Your task to perform on an android device: toggle priority inbox in the gmail app Image 0: 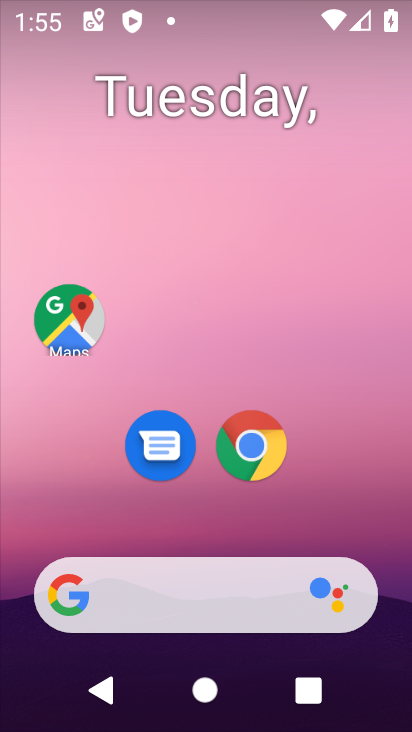
Step 0: drag from (346, 469) to (208, 0)
Your task to perform on an android device: toggle priority inbox in the gmail app Image 1: 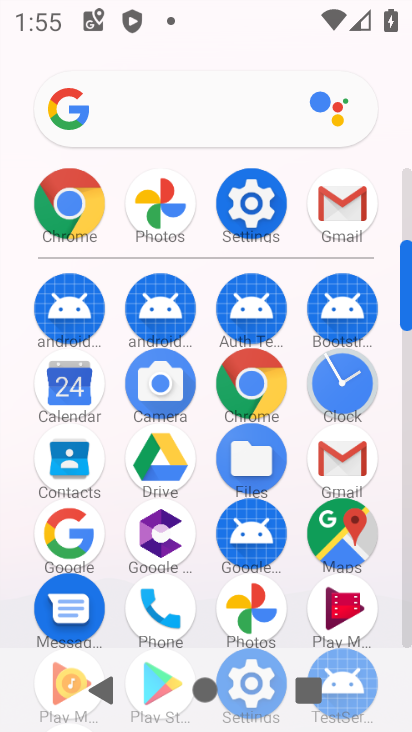
Step 1: click (344, 209)
Your task to perform on an android device: toggle priority inbox in the gmail app Image 2: 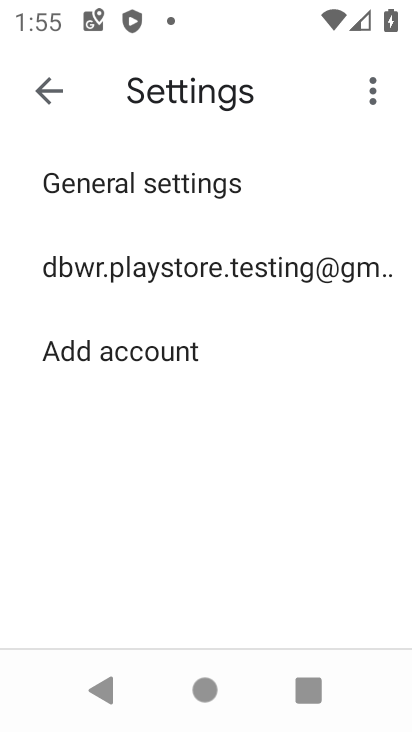
Step 2: click (130, 257)
Your task to perform on an android device: toggle priority inbox in the gmail app Image 3: 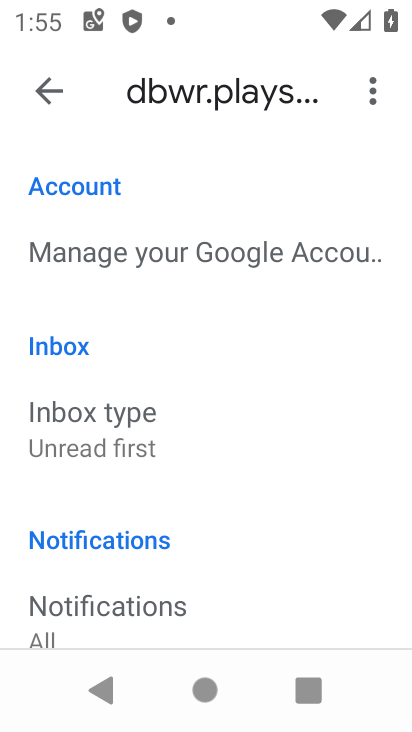
Step 3: click (155, 429)
Your task to perform on an android device: toggle priority inbox in the gmail app Image 4: 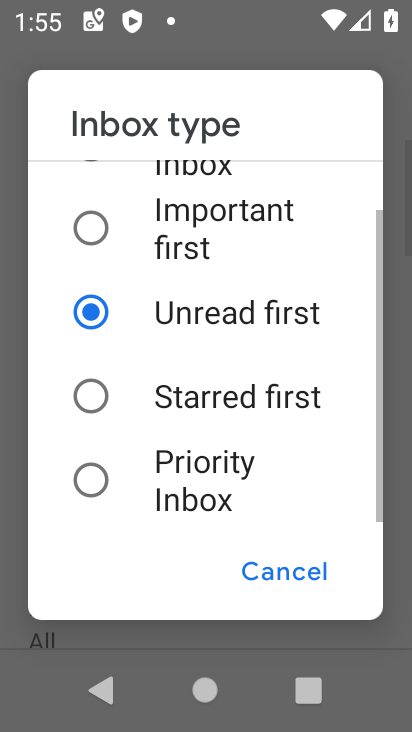
Step 4: click (200, 511)
Your task to perform on an android device: toggle priority inbox in the gmail app Image 5: 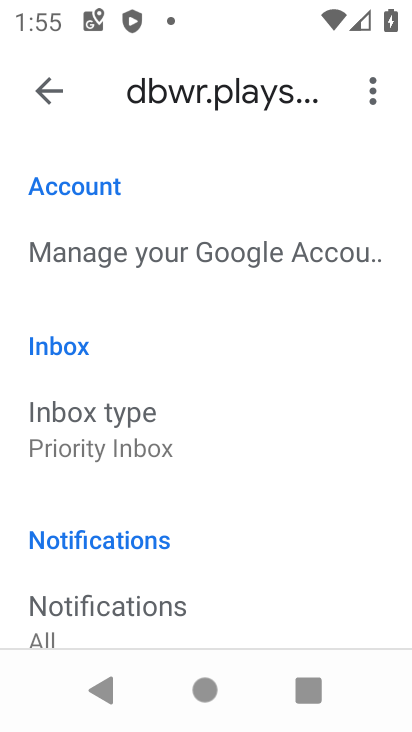
Step 5: task complete